Your task to perform on an android device: Do I have any events tomorrow? Image 0: 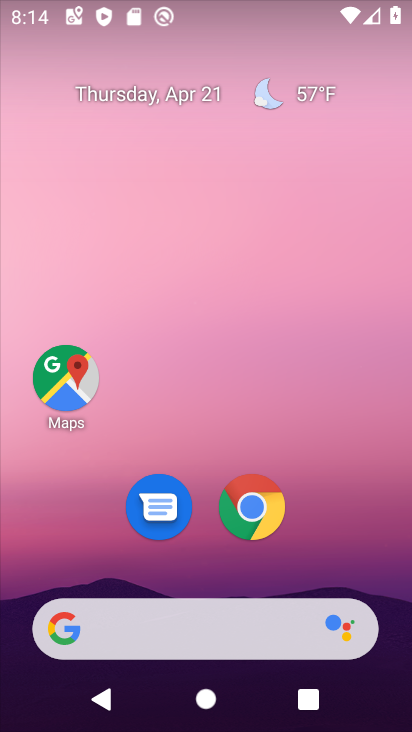
Step 0: drag from (192, 565) to (170, 33)
Your task to perform on an android device: Do I have any events tomorrow? Image 1: 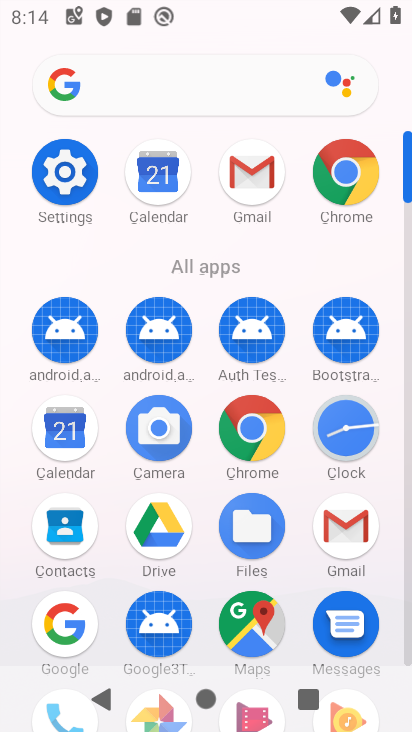
Step 1: click (138, 165)
Your task to perform on an android device: Do I have any events tomorrow? Image 2: 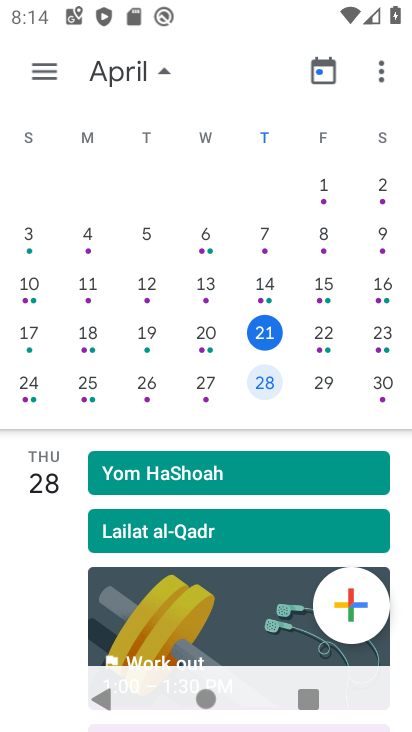
Step 2: click (261, 331)
Your task to perform on an android device: Do I have any events tomorrow? Image 3: 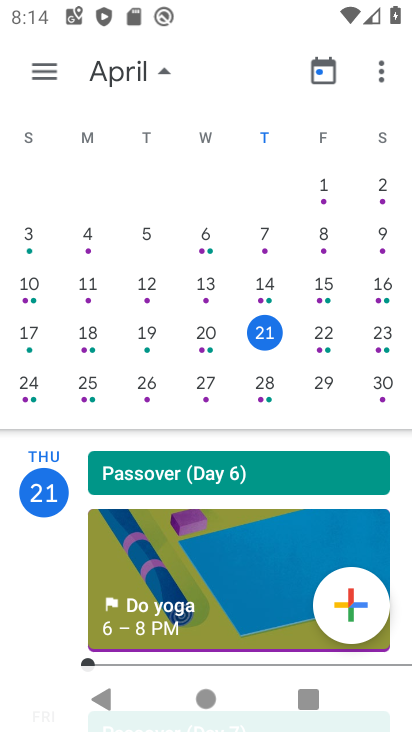
Step 3: task complete